Your task to perform on an android device: Open Amazon Image 0: 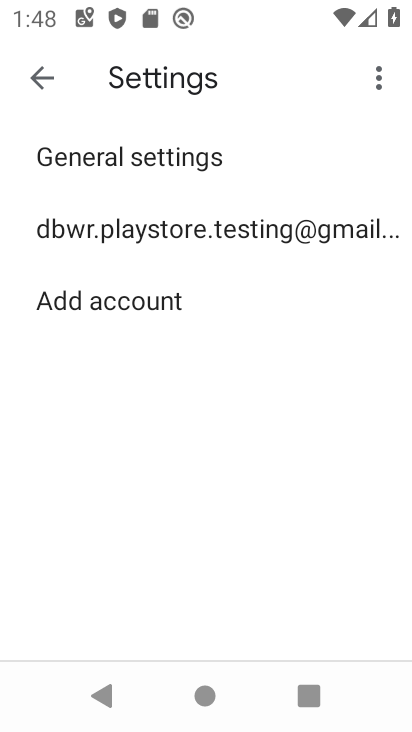
Step 0: press home button
Your task to perform on an android device: Open Amazon Image 1: 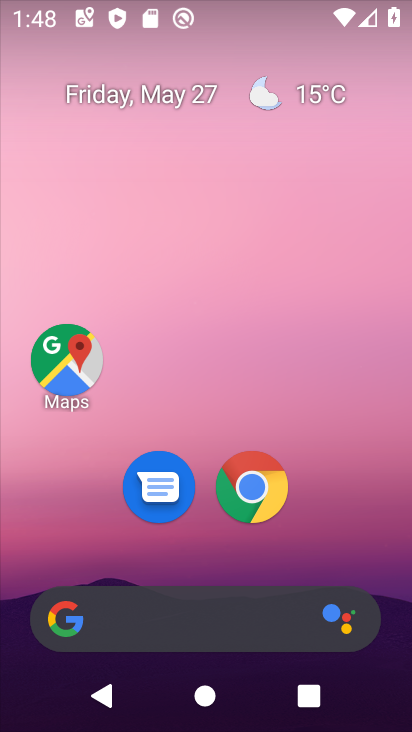
Step 1: click (209, 618)
Your task to perform on an android device: Open Amazon Image 2: 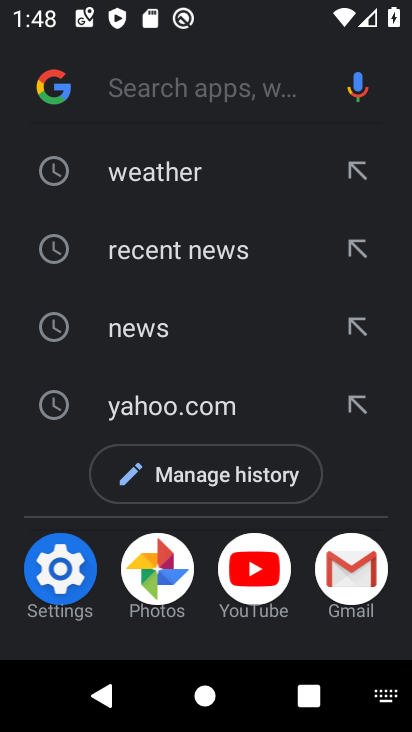
Step 2: click (51, 70)
Your task to perform on an android device: Open Amazon Image 3: 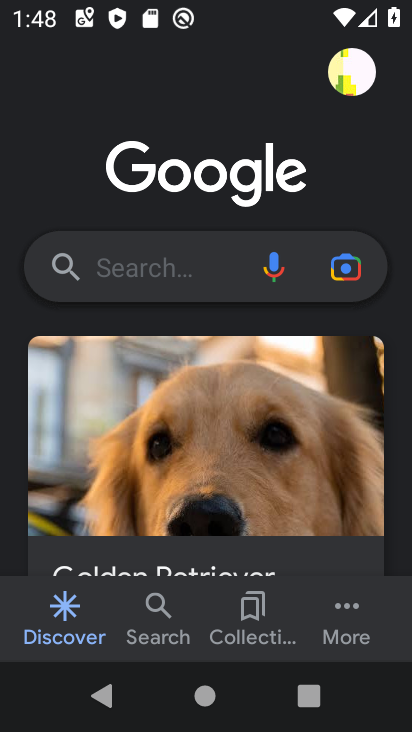
Step 3: click (229, 201)
Your task to perform on an android device: Open Amazon Image 4: 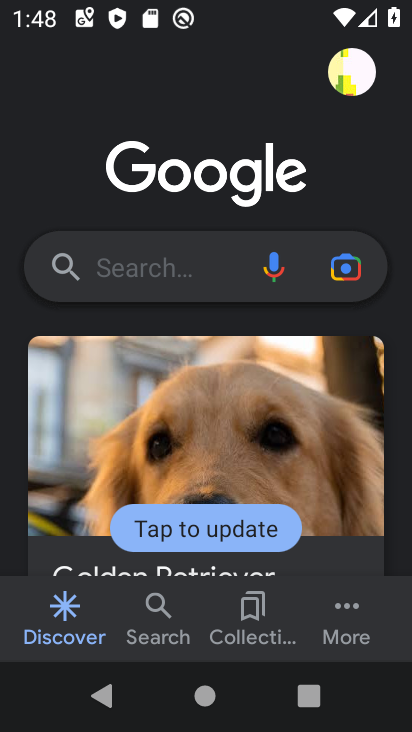
Step 4: click (204, 238)
Your task to perform on an android device: Open Amazon Image 5: 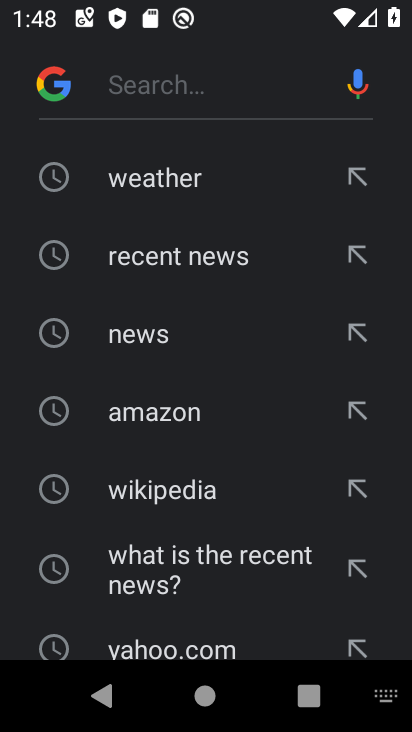
Step 5: click (181, 414)
Your task to perform on an android device: Open Amazon Image 6: 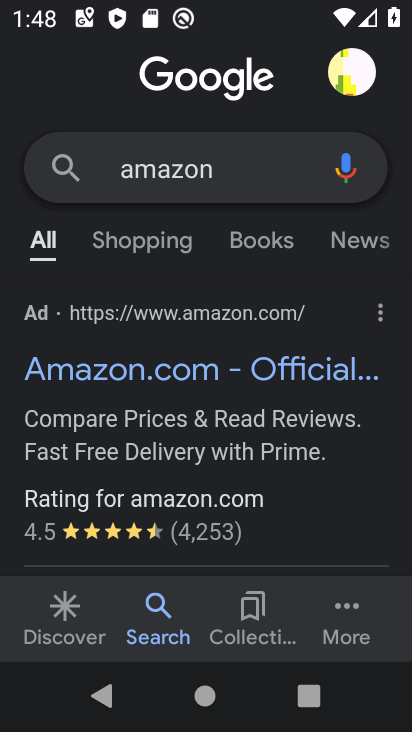
Step 6: click (164, 367)
Your task to perform on an android device: Open Amazon Image 7: 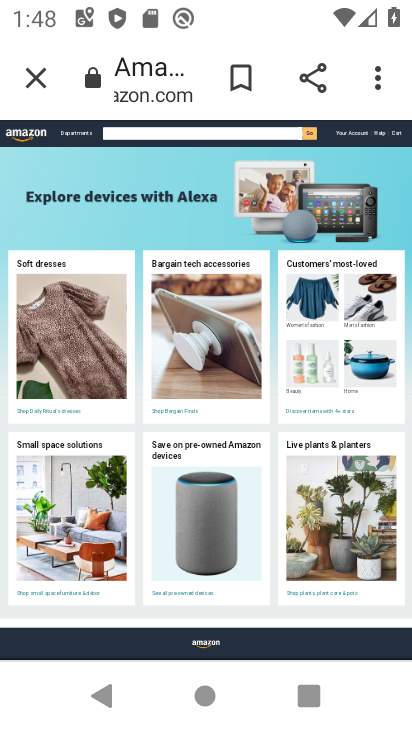
Step 7: task complete